Your task to perform on an android device: When is my next meeting? Image 0: 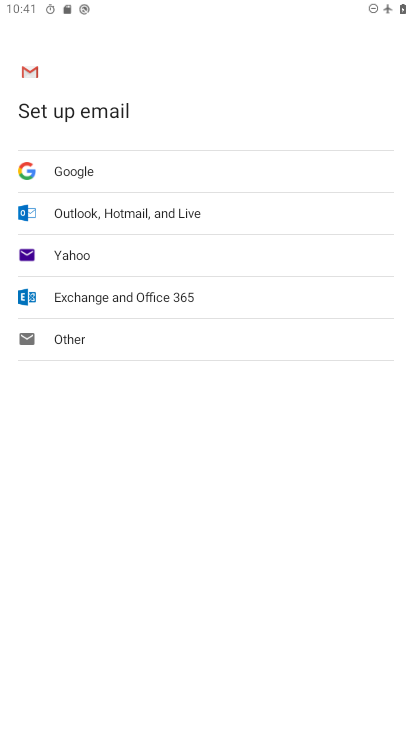
Step 0: press home button
Your task to perform on an android device: When is my next meeting? Image 1: 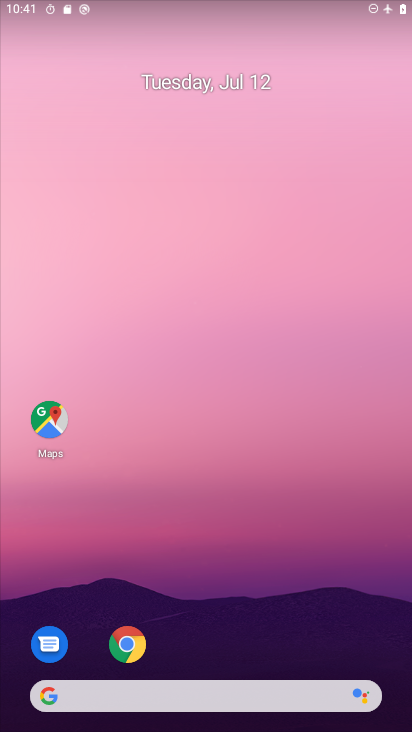
Step 1: drag from (228, 639) to (232, 144)
Your task to perform on an android device: When is my next meeting? Image 2: 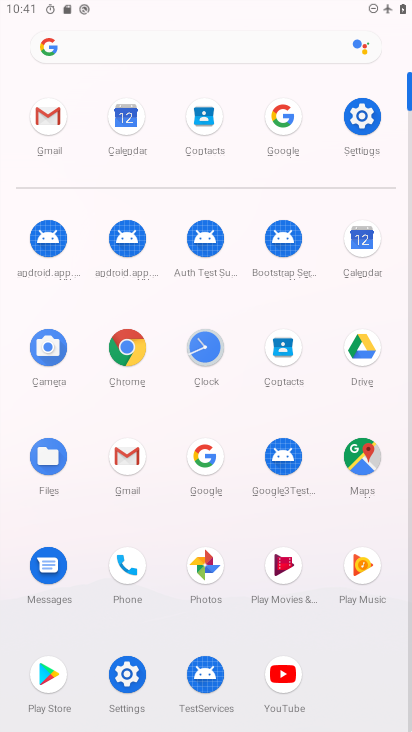
Step 2: click (370, 260)
Your task to perform on an android device: When is my next meeting? Image 3: 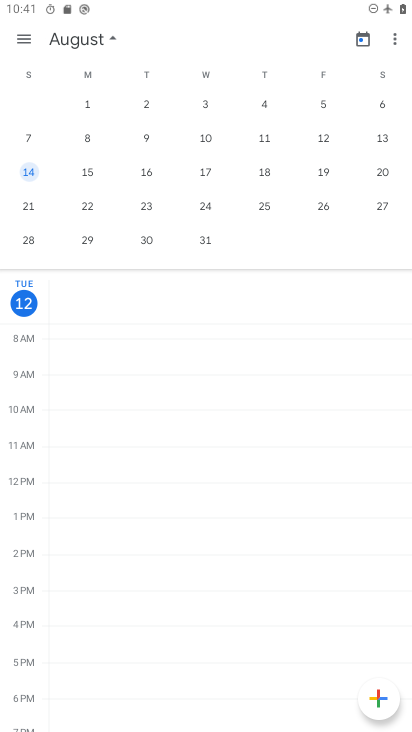
Step 3: task complete